Your task to perform on an android device: toggle pop-ups in chrome Image 0: 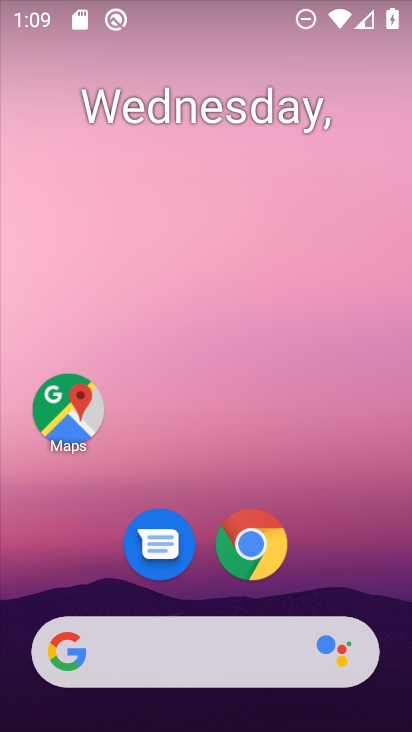
Step 0: click (236, 562)
Your task to perform on an android device: toggle pop-ups in chrome Image 1: 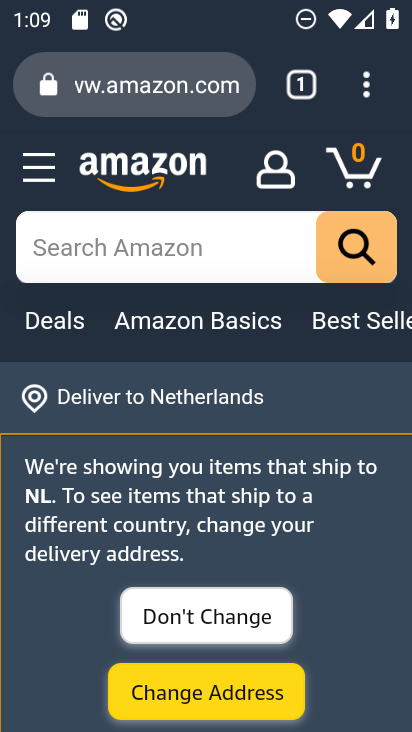
Step 1: click (362, 70)
Your task to perform on an android device: toggle pop-ups in chrome Image 2: 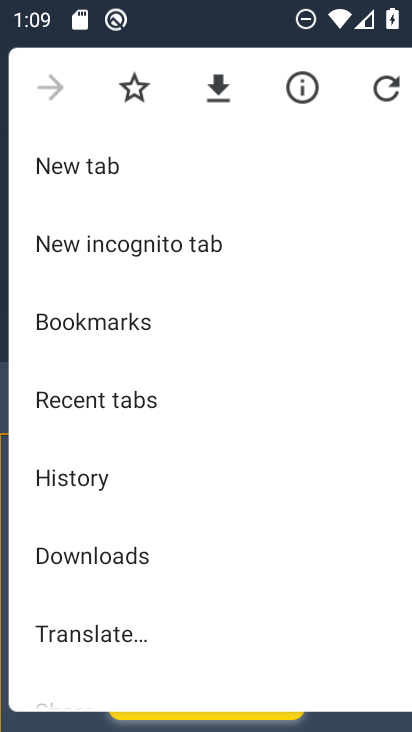
Step 2: drag from (181, 580) to (222, 239)
Your task to perform on an android device: toggle pop-ups in chrome Image 3: 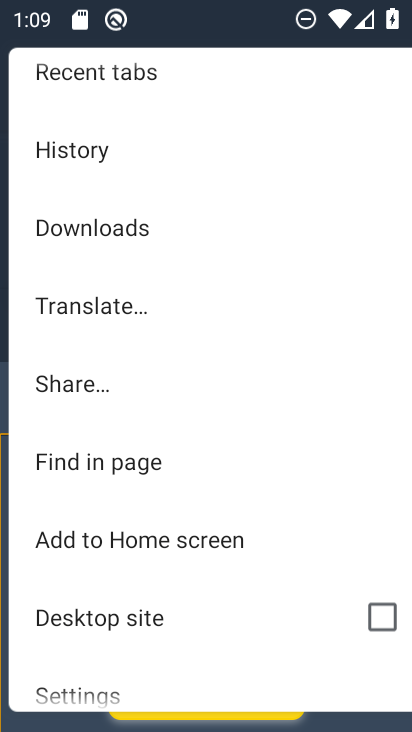
Step 3: drag from (138, 593) to (207, 270)
Your task to perform on an android device: toggle pop-ups in chrome Image 4: 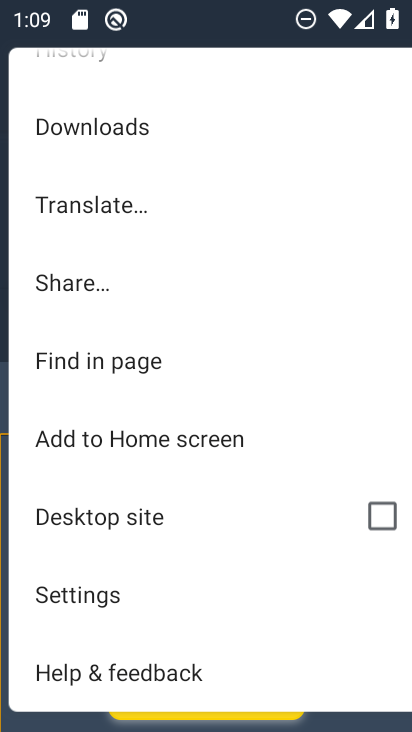
Step 4: click (139, 581)
Your task to perform on an android device: toggle pop-ups in chrome Image 5: 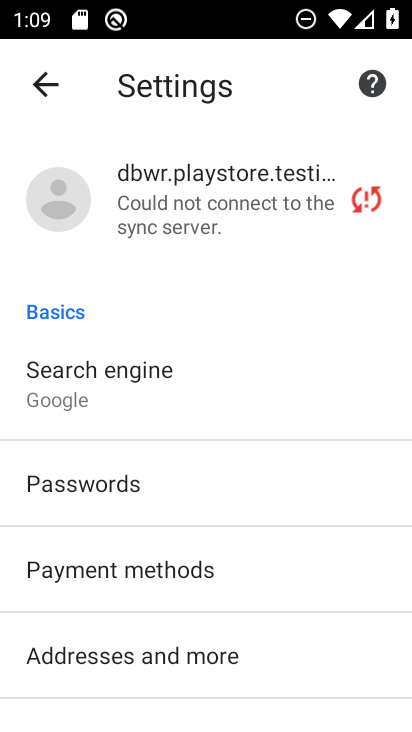
Step 5: drag from (152, 587) to (224, 333)
Your task to perform on an android device: toggle pop-ups in chrome Image 6: 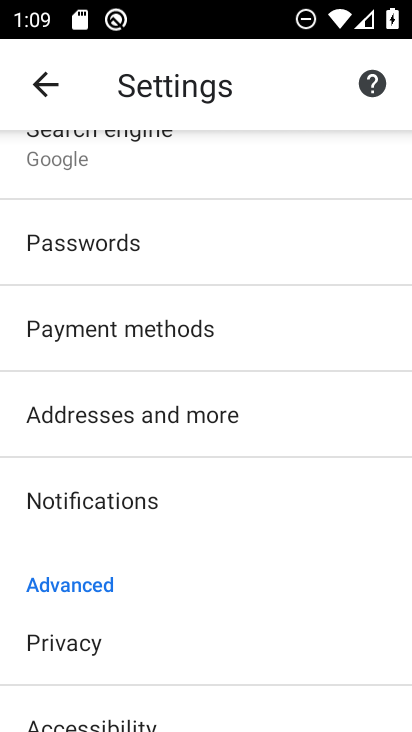
Step 6: drag from (243, 670) to (257, 333)
Your task to perform on an android device: toggle pop-ups in chrome Image 7: 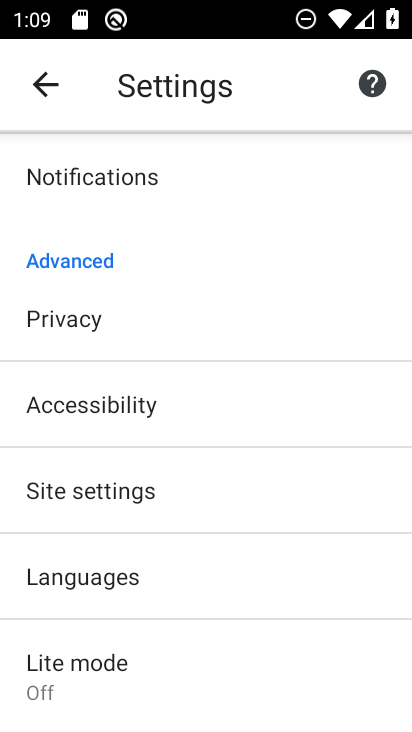
Step 7: click (202, 491)
Your task to perform on an android device: toggle pop-ups in chrome Image 8: 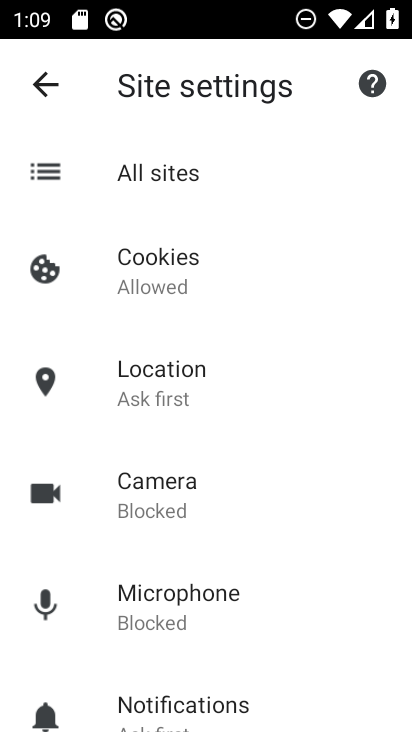
Step 8: drag from (269, 638) to (283, 431)
Your task to perform on an android device: toggle pop-ups in chrome Image 9: 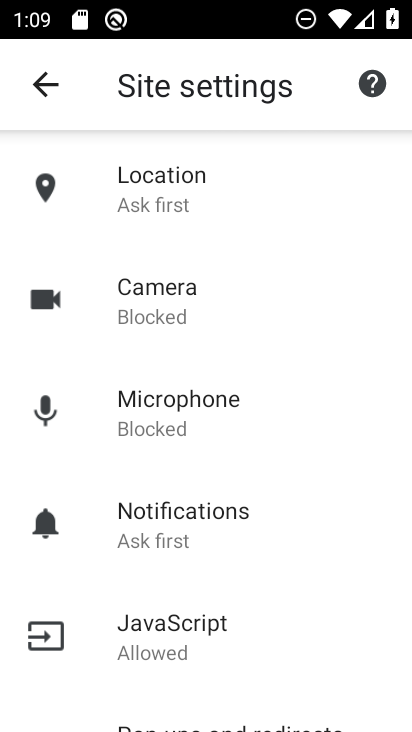
Step 9: drag from (253, 672) to (289, 489)
Your task to perform on an android device: toggle pop-ups in chrome Image 10: 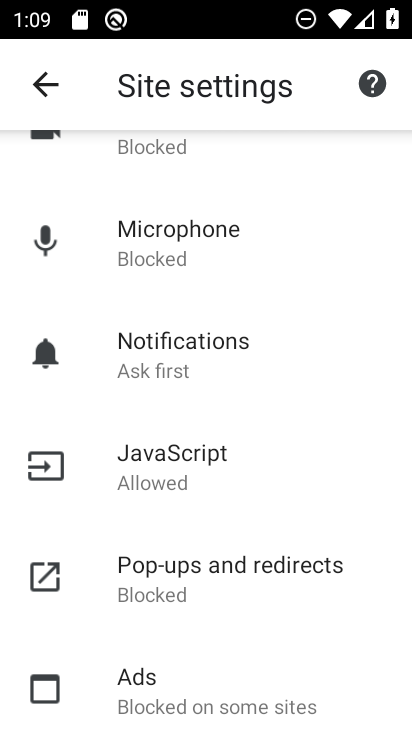
Step 10: click (247, 562)
Your task to perform on an android device: toggle pop-ups in chrome Image 11: 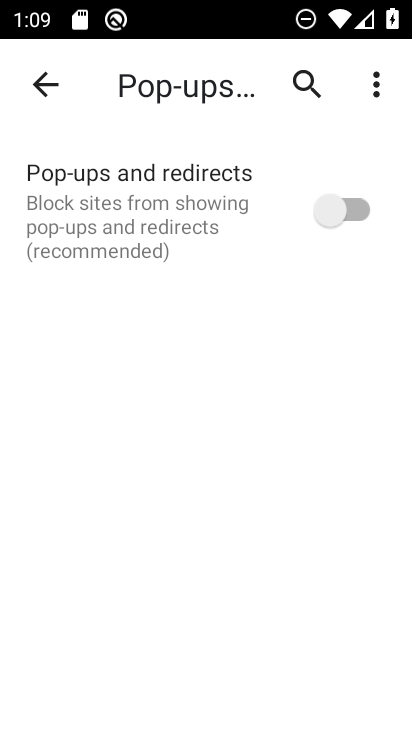
Step 11: click (365, 211)
Your task to perform on an android device: toggle pop-ups in chrome Image 12: 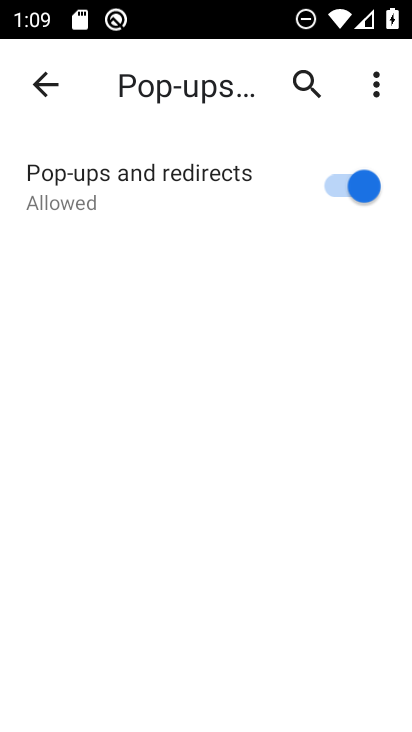
Step 12: task complete